Your task to perform on an android device: turn on the 12-hour format for clock Image 0: 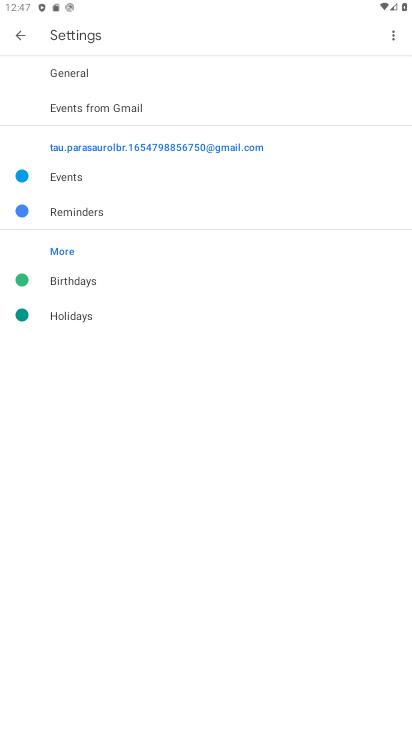
Step 0: press home button
Your task to perform on an android device: turn on the 12-hour format for clock Image 1: 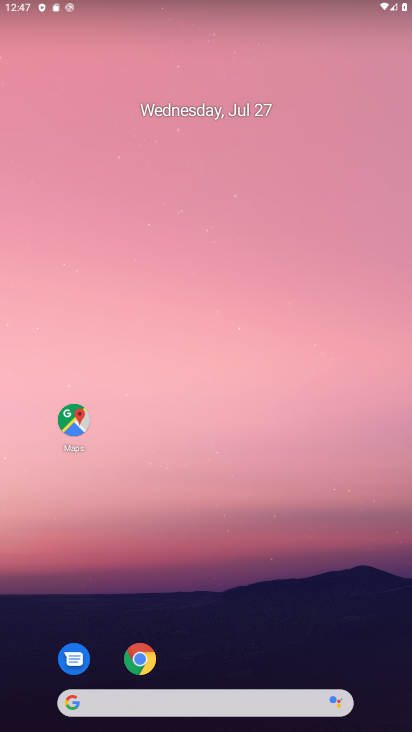
Step 1: drag from (310, 645) to (259, 112)
Your task to perform on an android device: turn on the 12-hour format for clock Image 2: 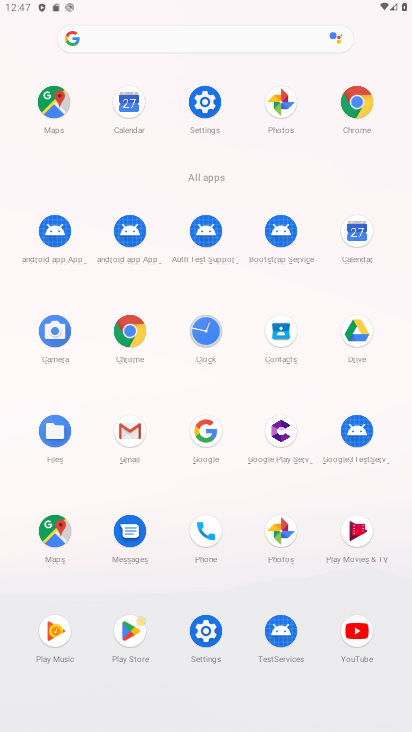
Step 2: click (213, 337)
Your task to perform on an android device: turn on the 12-hour format for clock Image 3: 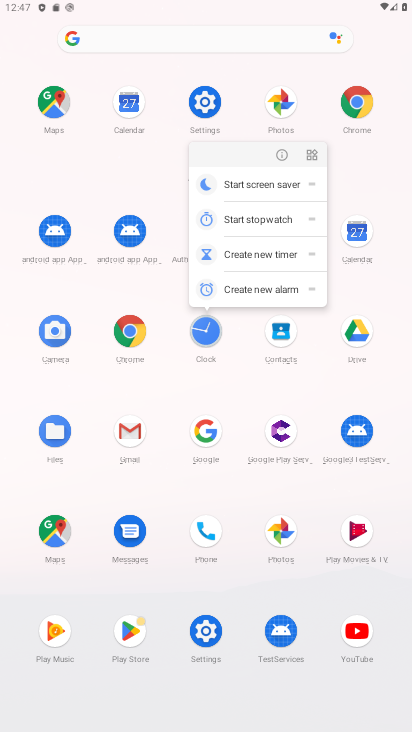
Step 3: click (213, 337)
Your task to perform on an android device: turn on the 12-hour format for clock Image 4: 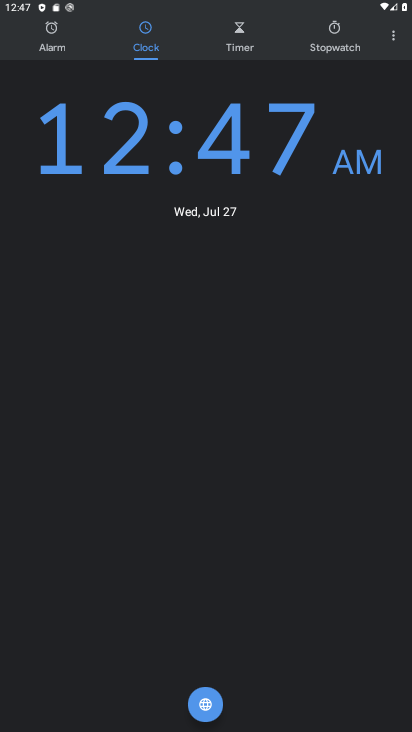
Step 4: click (399, 30)
Your task to perform on an android device: turn on the 12-hour format for clock Image 5: 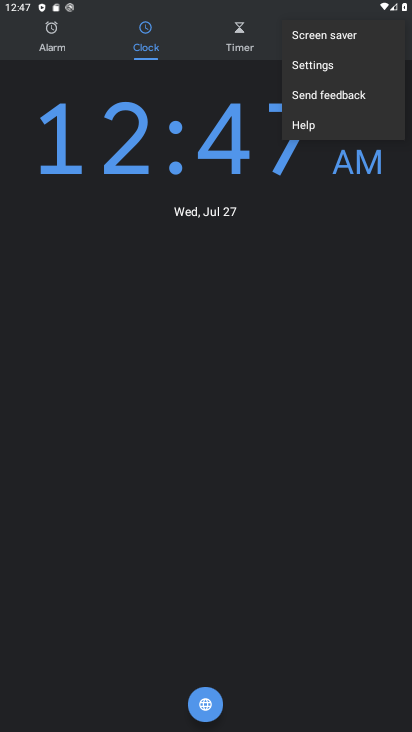
Step 5: click (321, 67)
Your task to perform on an android device: turn on the 12-hour format for clock Image 6: 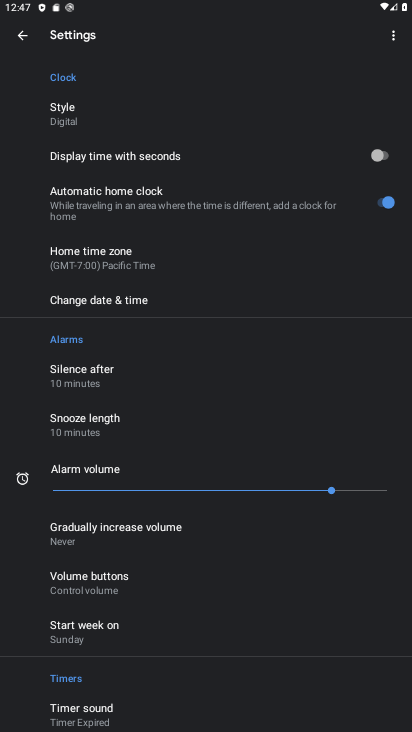
Step 6: click (146, 312)
Your task to perform on an android device: turn on the 12-hour format for clock Image 7: 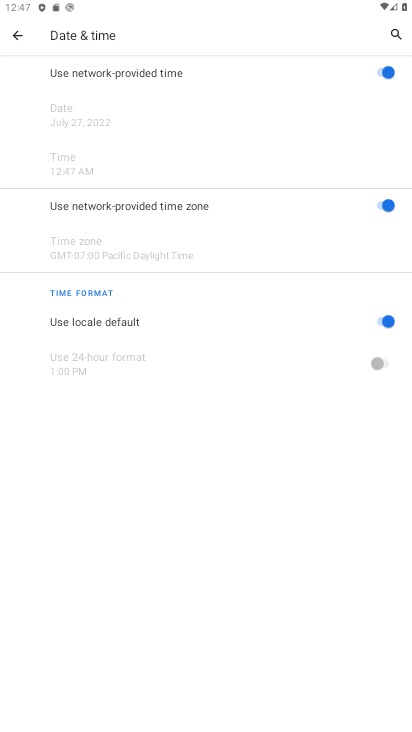
Step 7: task complete